Your task to perform on an android device: Add macbook pro 15 inch to the cart on walmart, then select checkout. Image 0: 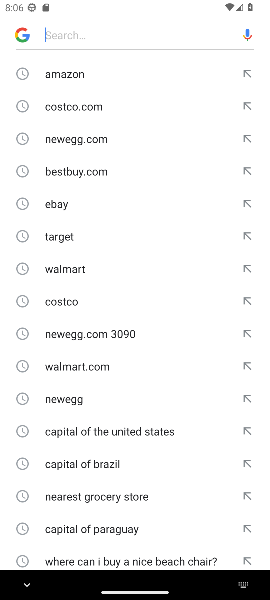
Step 0: click (75, 270)
Your task to perform on an android device: Add macbook pro 15 inch to the cart on walmart, then select checkout. Image 1: 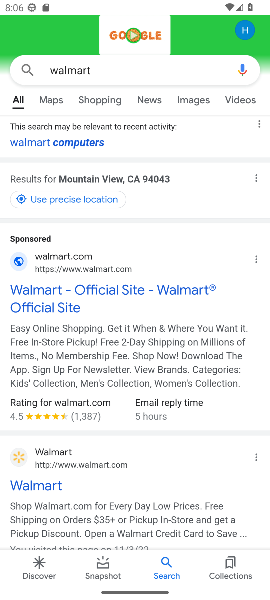
Step 1: click (50, 494)
Your task to perform on an android device: Add macbook pro 15 inch to the cart on walmart, then select checkout. Image 2: 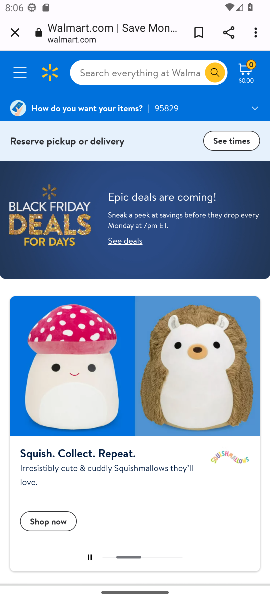
Step 2: click (124, 76)
Your task to perform on an android device: Add macbook pro 15 inch to the cart on walmart, then select checkout. Image 3: 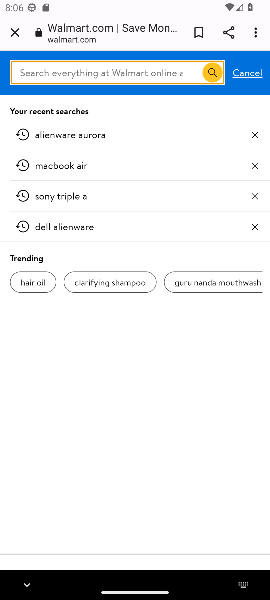
Step 3: type "macbook pro 15 inch"
Your task to perform on an android device: Add macbook pro 15 inch to the cart on walmart, then select checkout. Image 4: 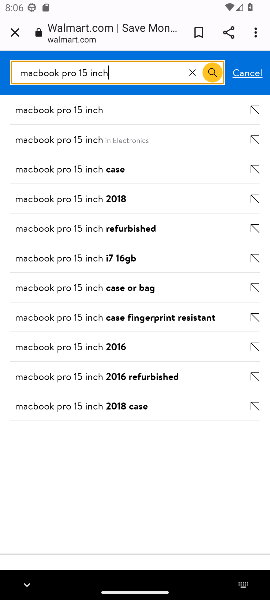
Step 4: click (87, 108)
Your task to perform on an android device: Add macbook pro 15 inch to the cart on walmart, then select checkout. Image 5: 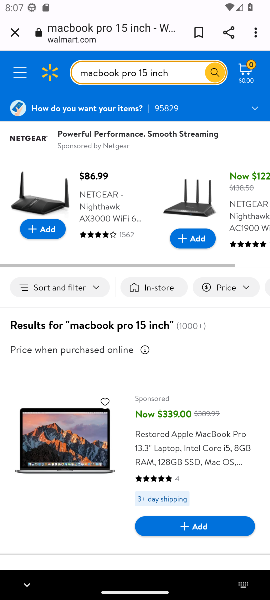
Step 5: drag from (94, 458) to (66, 223)
Your task to perform on an android device: Add macbook pro 15 inch to the cart on walmart, then select checkout. Image 6: 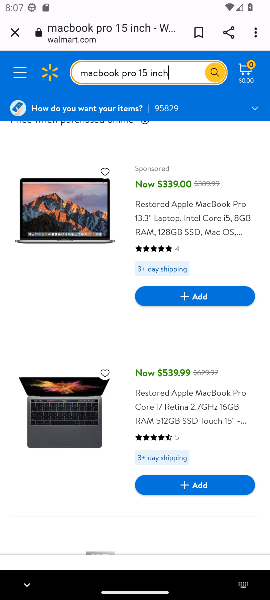
Step 6: drag from (72, 428) to (74, 198)
Your task to perform on an android device: Add macbook pro 15 inch to the cart on walmart, then select checkout. Image 7: 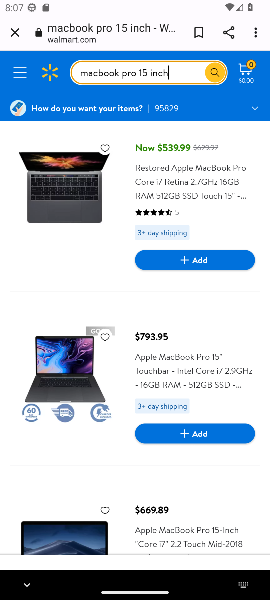
Step 7: click (64, 380)
Your task to perform on an android device: Add macbook pro 15 inch to the cart on walmart, then select checkout. Image 8: 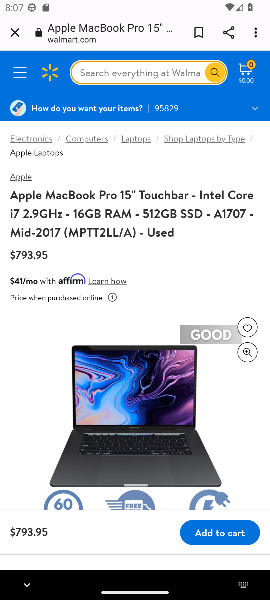
Step 8: drag from (95, 455) to (76, 329)
Your task to perform on an android device: Add macbook pro 15 inch to the cart on walmart, then select checkout. Image 9: 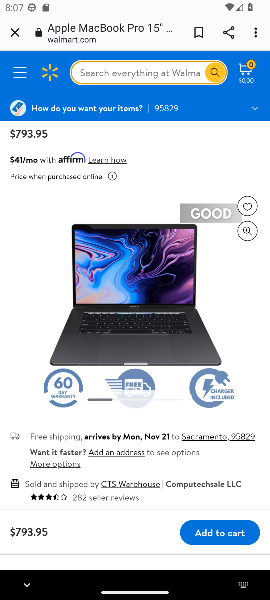
Step 9: click (212, 536)
Your task to perform on an android device: Add macbook pro 15 inch to the cart on walmart, then select checkout. Image 10: 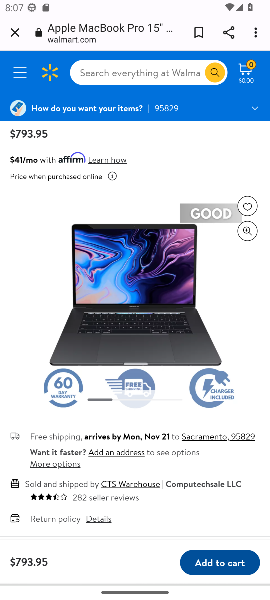
Step 10: click (210, 564)
Your task to perform on an android device: Add macbook pro 15 inch to the cart on walmart, then select checkout. Image 11: 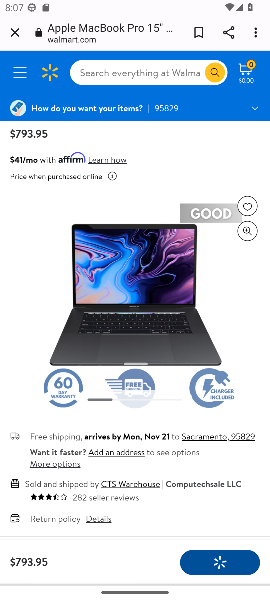
Step 11: drag from (148, 498) to (130, 371)
Your task to perform on an android device: Add macbook pro 15 inch to the cart on walmart, then select checkout. Image 12: 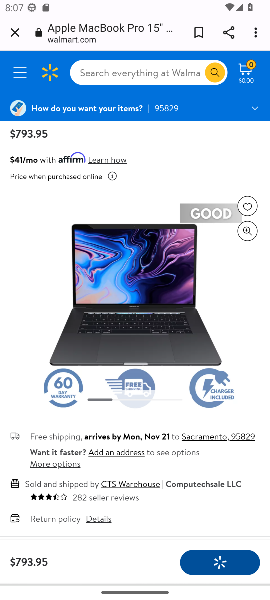
Step 12: drag from (109, 449) to (94, 96)
Your task to perform on an android device: Add macbook pro 15 inch to the cart on walmart, then select checkout. Image 13: 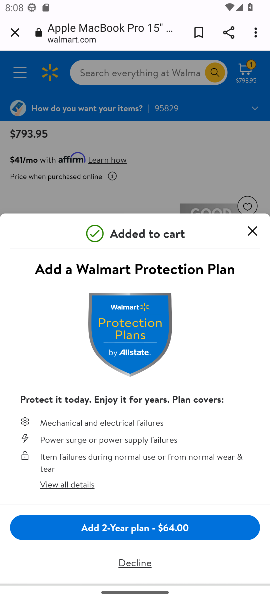
Step 13: click (258, 230)
Your task to perform on an android device: Add macbook pro 15 inch to the cart on walmart, then select checkout. Image 14: 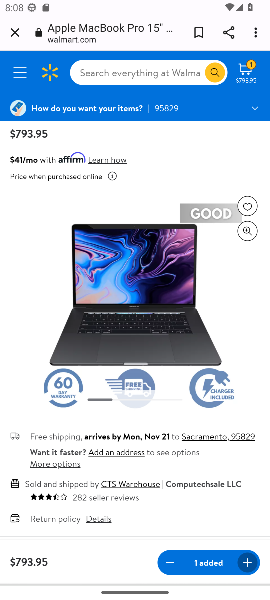
Step 14: click (240, 73)
Your task to perform on an android device: Add macbook pro 15 inch to the cart on walmart, then select checkout. Image 15: 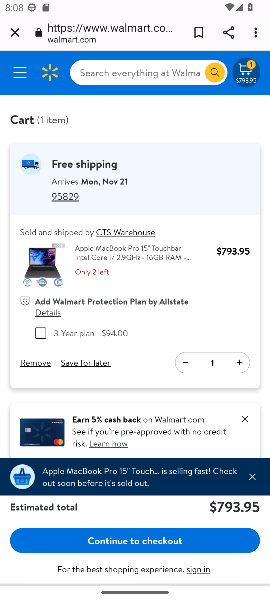
Step 15: click (117, 539)
Your task to perform on an android device: Add macbook pro 15 inch to the cart on walmart, then select checkout. Image 16: 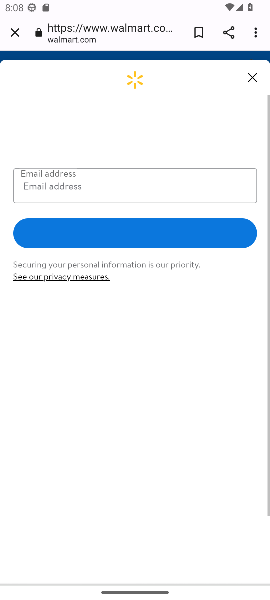
Step 16: task complete